Your task to perform on an android device: Show me popular games on the Play Store Image 0: 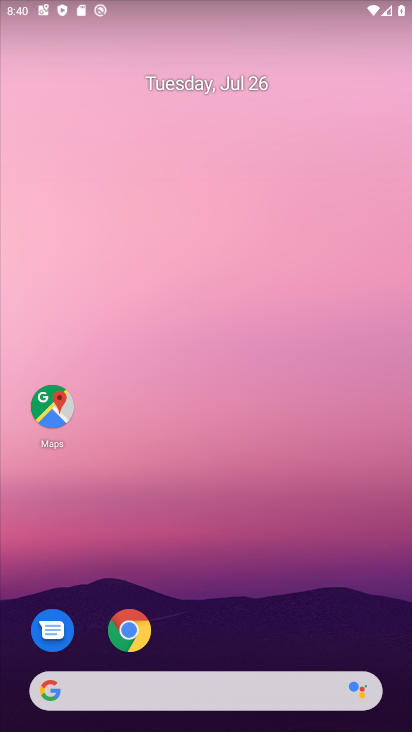
Step 0: drag from (261, 630) to (330, 102)
Your task to perform on an android device: Show me popular games on the Play Store Image 1: 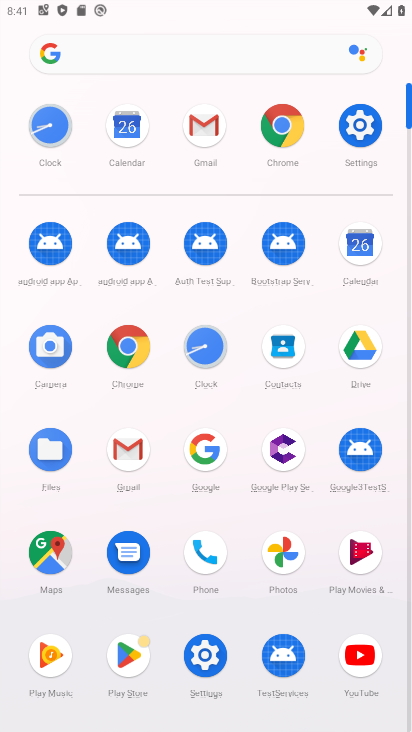
Step 1: click (105, 655)
Your task to perform on an android device: Show me popular games on the Play Store Image 2: 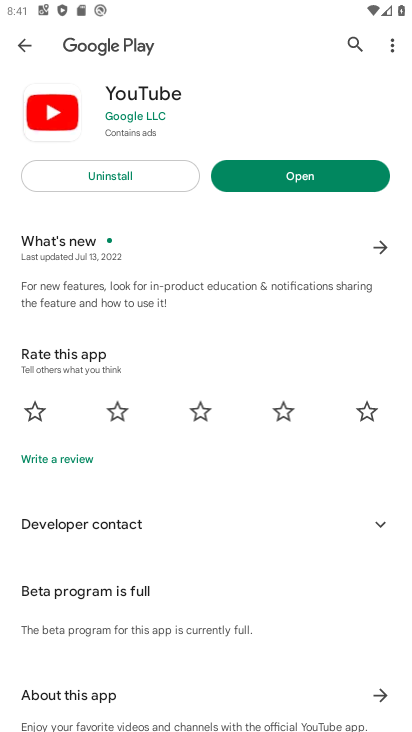
Step 2: click (19, 59)
Your task to perform on an android device: Show me popular games on the Play Store Image 3: 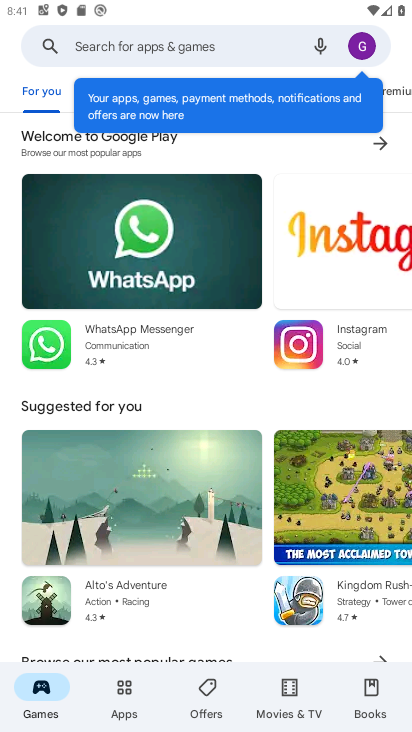
Step 3: click (12, 120)
Your task to perform on an android device: Show me popular games on the Play Store Image 4: 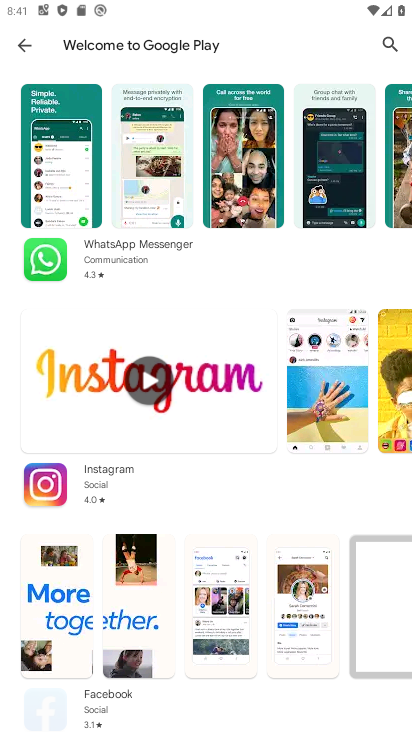
Step 4: click (126, 85)
Your task to perform on an android device: Show me popular games on the Play Store Image 5: 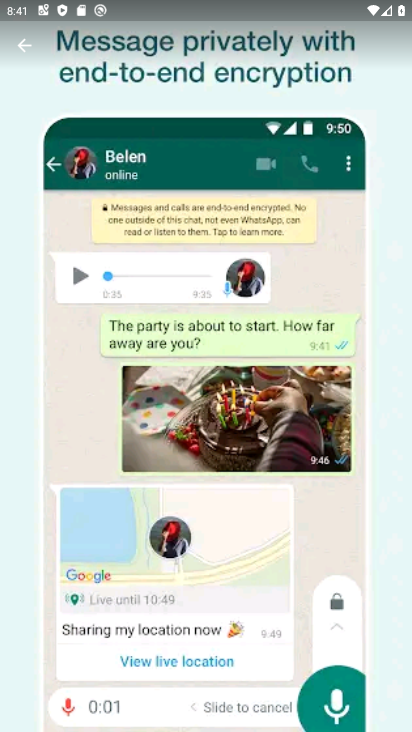
Step 5: task complete